Your task to perform on an android device: Show me the alarms in the clock app Image 0: 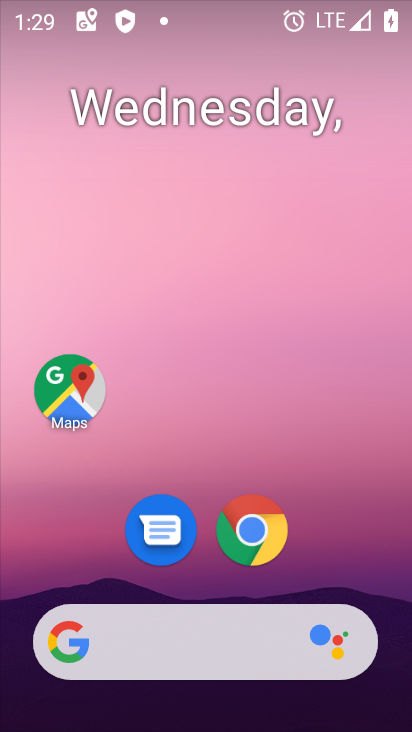
Step 0: press home button
Your task to perform on an android device: Show me the alarms in the clock app Image 1: 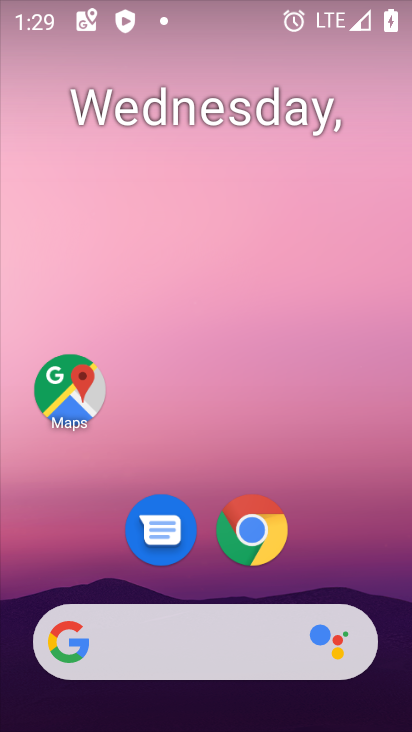
Step 1: drag from (372, 586) to (319, 131)
Your task to perform on an android device: Show me the alarms in the clock app Image 2: 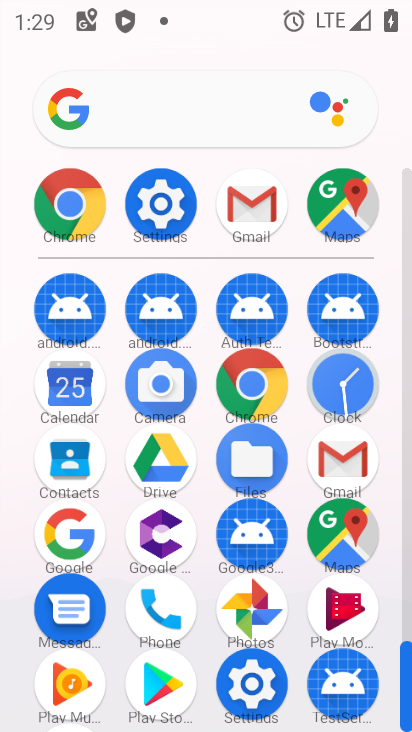
Step 2: click (351, 392)
Your task to perform on an android device: Show me the alarms in the clock app Image 3: 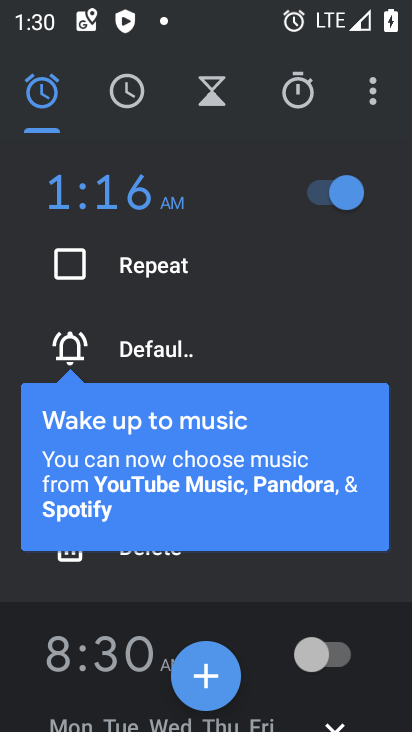
Step 3: task complete